Your task to perform on an android device: Open Google Maps and go to "Timeline" Image 0: 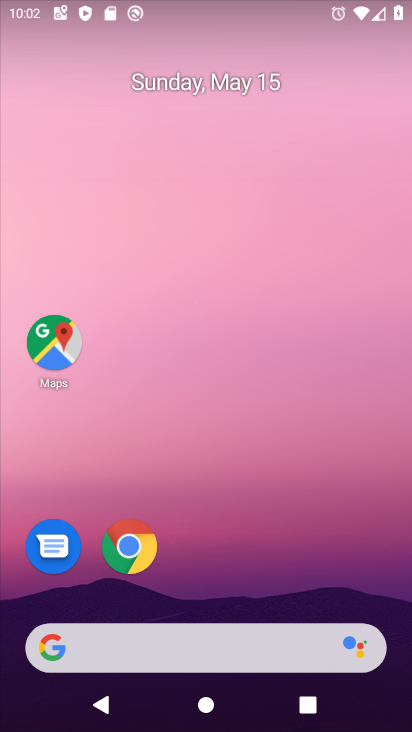
Step 0: click (54, 343)
Your task to perform on an android device: Open Google Maps and go to "Timeline" Image 1: 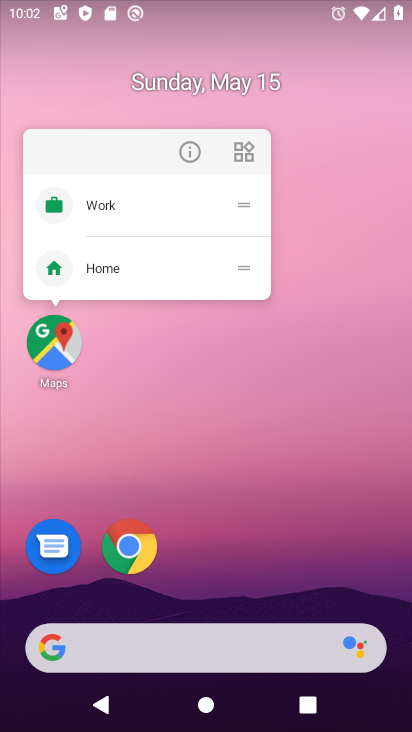
Step 1: click (54, 343)
Your task to perform on an android device: Open Google Maps and go to "Timeline" Image 2: 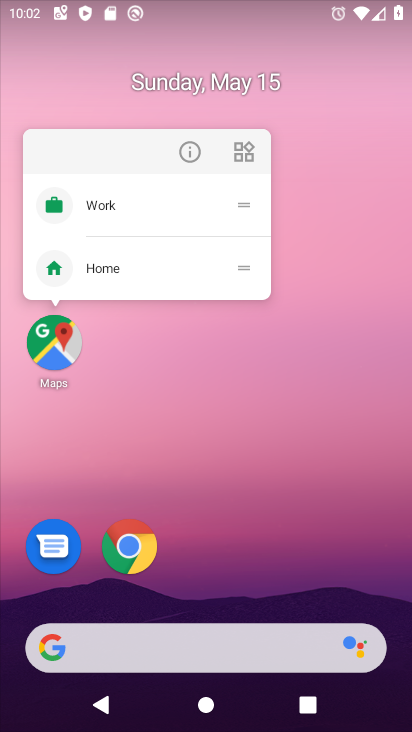
Step 2: click (52, 348)
Your task to perform on an android device: Open Google Maps and go to "Timeline" Image 3: 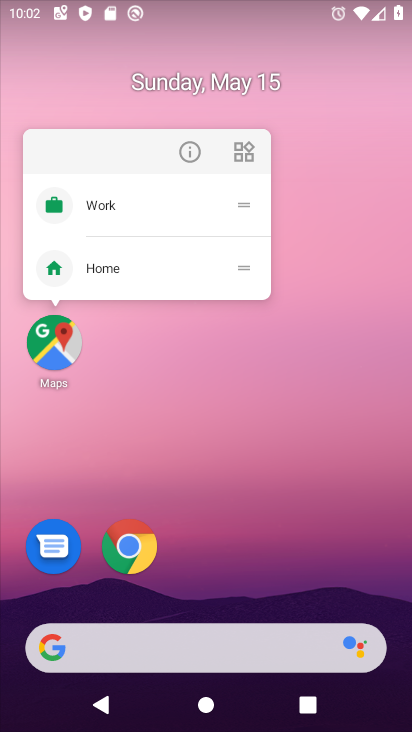
Step 3: click (54, 350)
Your task to perform on an android device: Open Google Maps and go to "Timeline" Image 4: 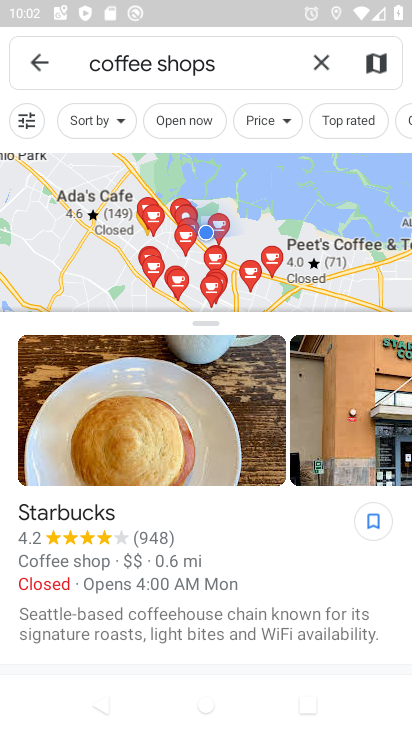
Step 4: click (42, 54)
Your task to perform on an android device: Open Google Maps and go to "Timeline" Image 5: 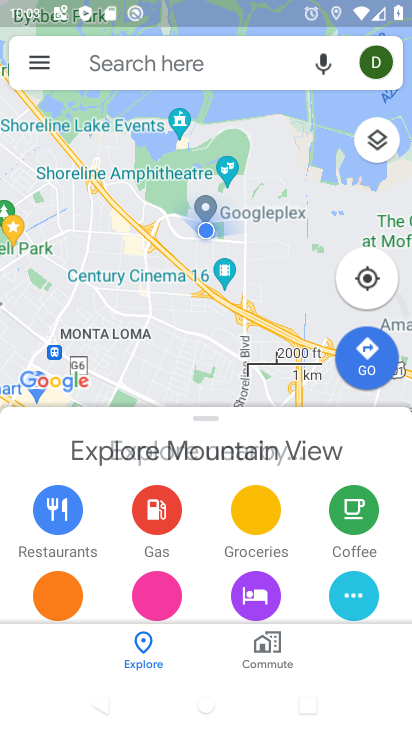
Step 5: click (38, 52)
Your task to perform on an android device: Open Google Maps and go to "Timeline" Image 6: 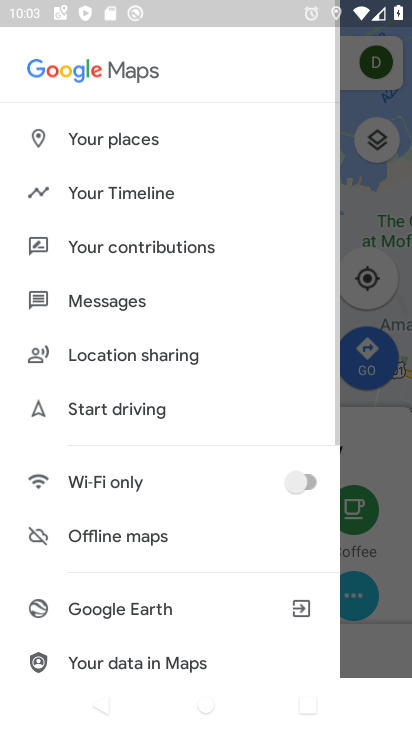
Step 6: click (137, 196)
Your task to perform on an android device: Open Google Maps and go to "Timeline" Image 7: 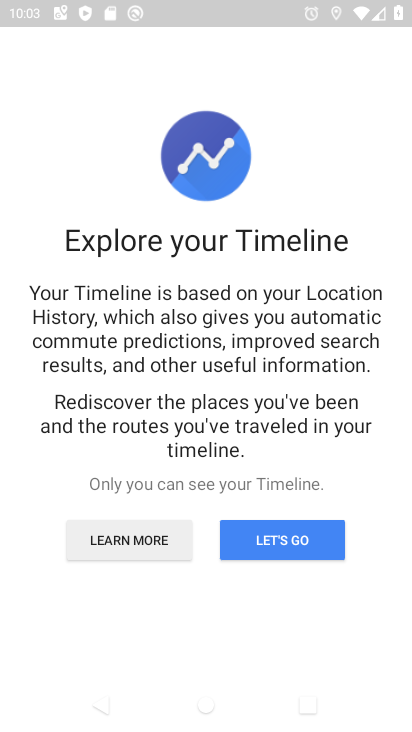
Step 7: click (303, 538)
Your task to perform on an android device: Open Google Maps and go to "Timeline" Image 8: 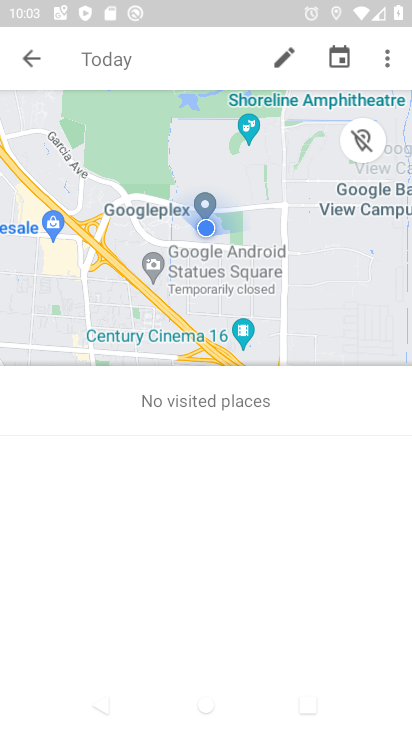
Step 8: task complete